Your task to perform on an android device: Clear the shopping cart on costco.com. Search for "razer blade" on costco.com, select the first entry, add it to the cart, then select checkout. Image 0: 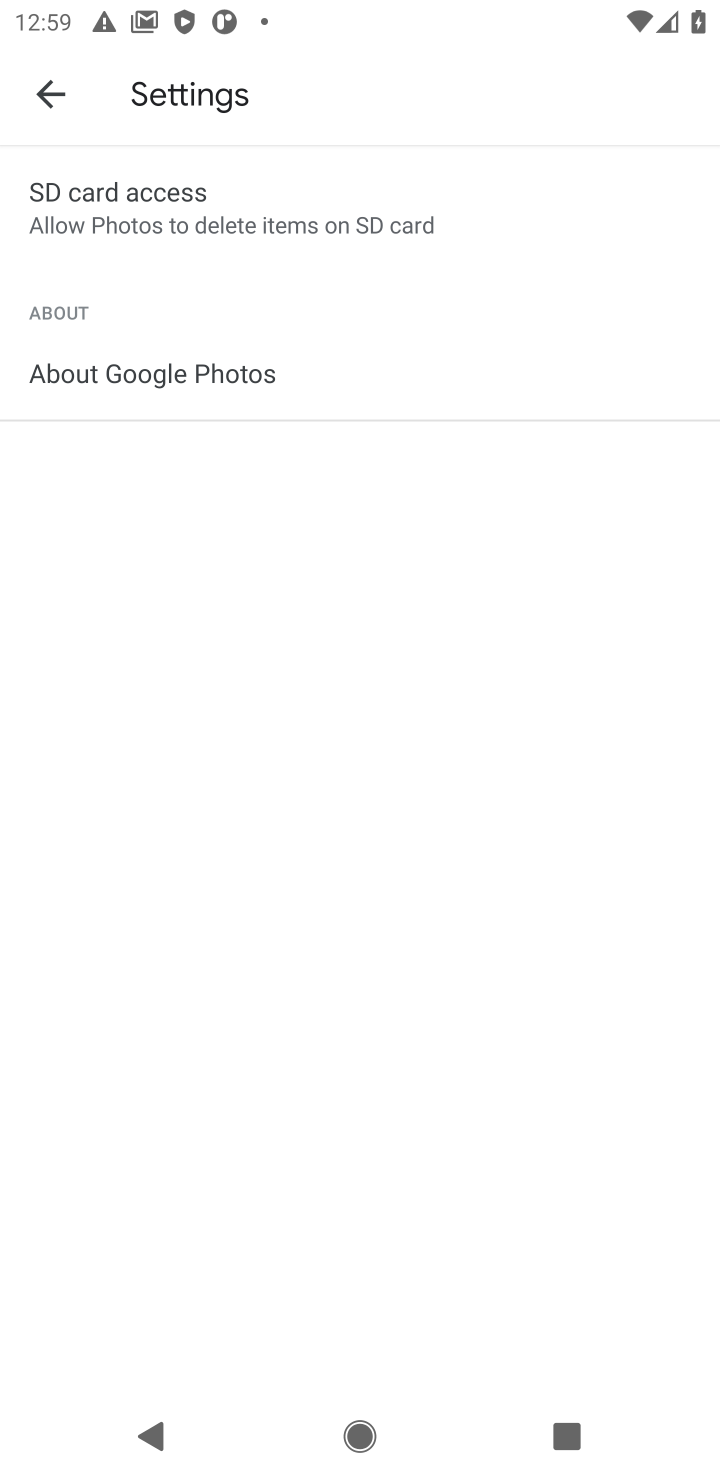
Step 0: press home button
Your task to perform on an android device: Clear the shopping cart on costco.com. Search for "razer blade" on costco.com, select the first entry, add it to the cart, then select checkout. Image 1: 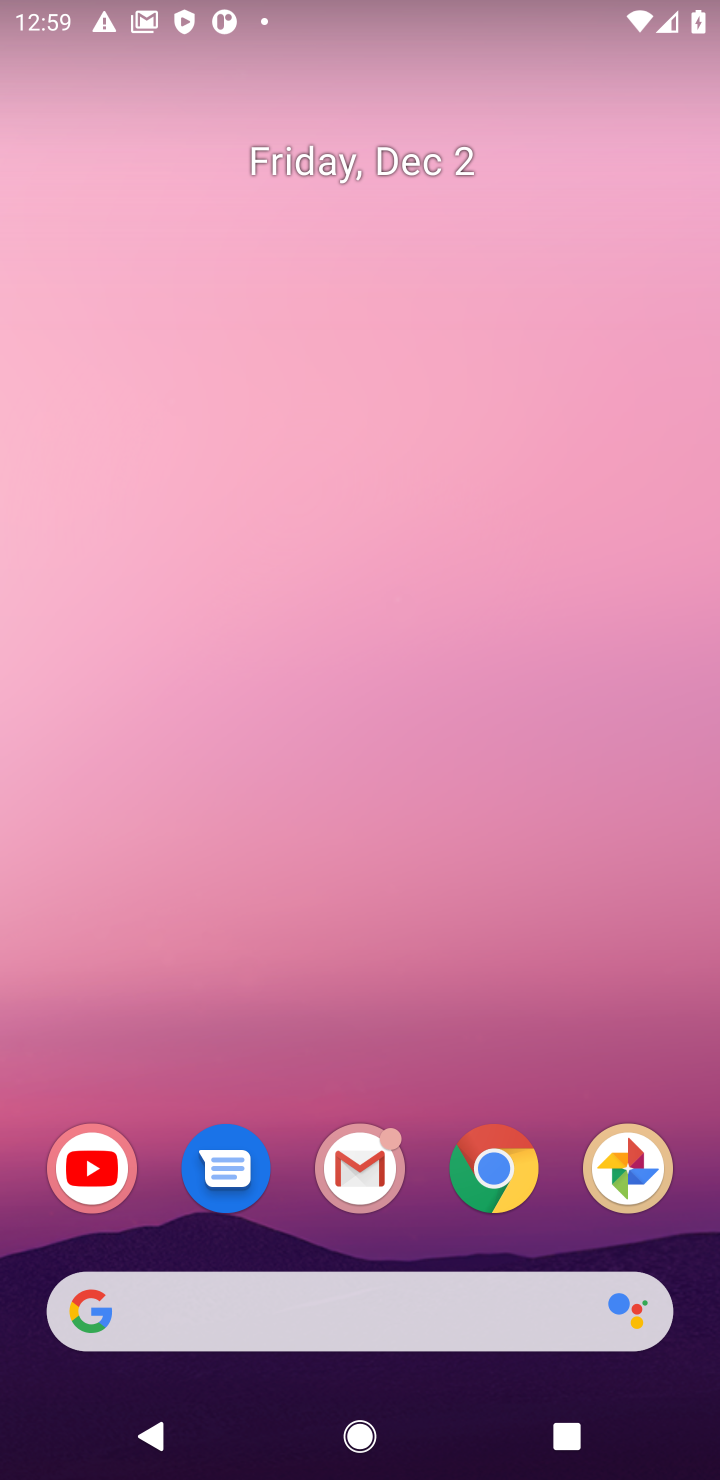
Step 1: click (501, 1177)
Your task to perform on an android device: Clear the shopping cart on costco.com. Search for "razer blade" on costco.com, select the first entry, add it to the cart, then select checkout. Image 2: 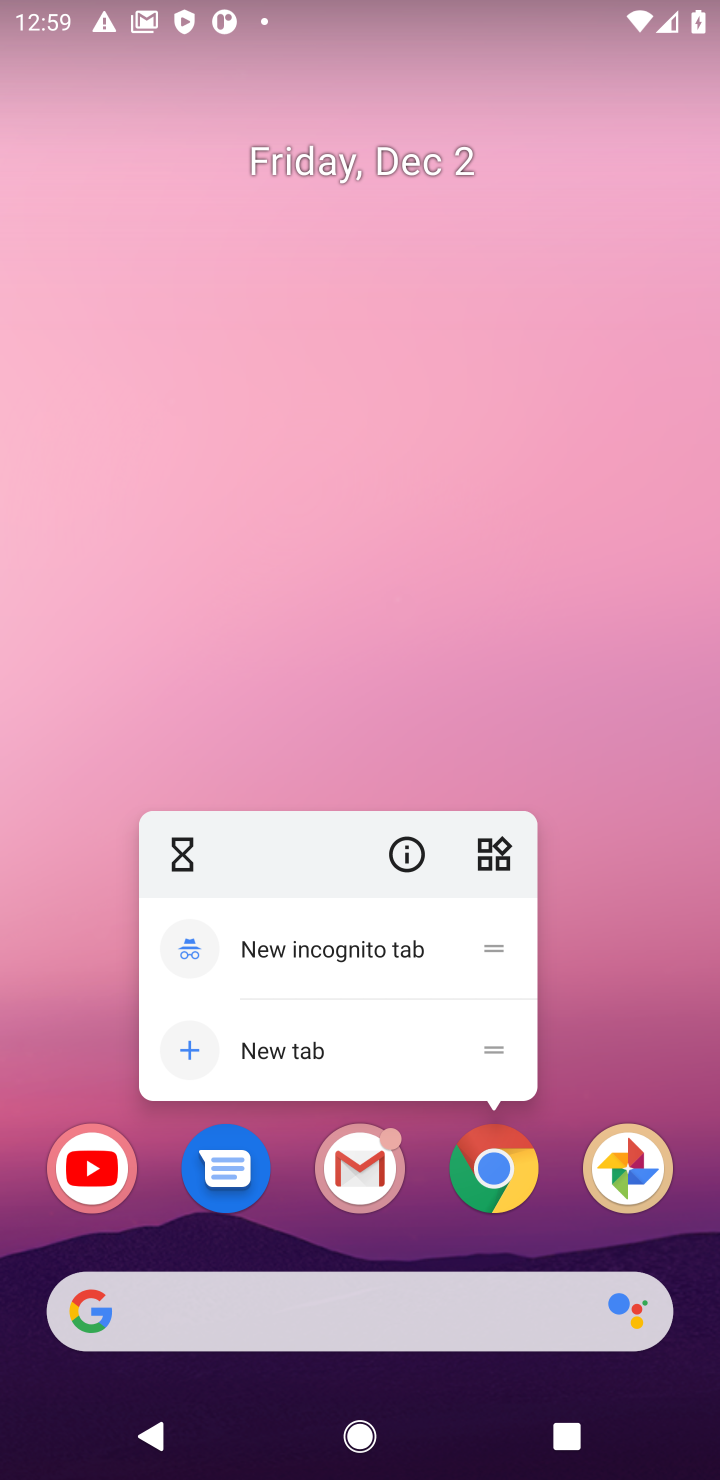
Step 2: click (501, 1177)
Your task to perform on an android device: Clear the shopping cart on costco.com. Search for "razer blade" on costco.com, select the first entry, add it to the cart, then select checkout. Image 3: 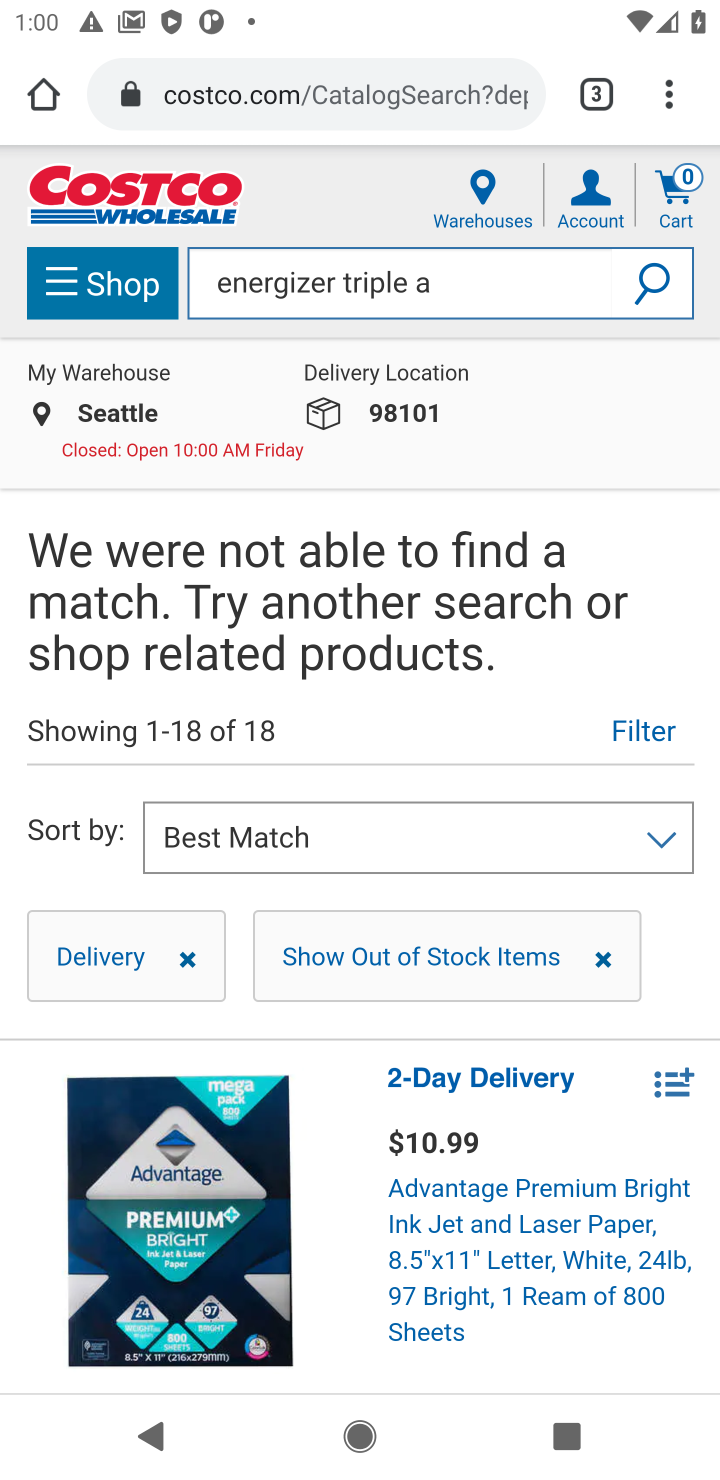
Step 3: click (677, 193)
Your task to perform on an android device: Clear the shopping cart on costco.com. Search for "razer blade" on costco.com, select the first entry, add it to the cart, then select checkout. Image 4: 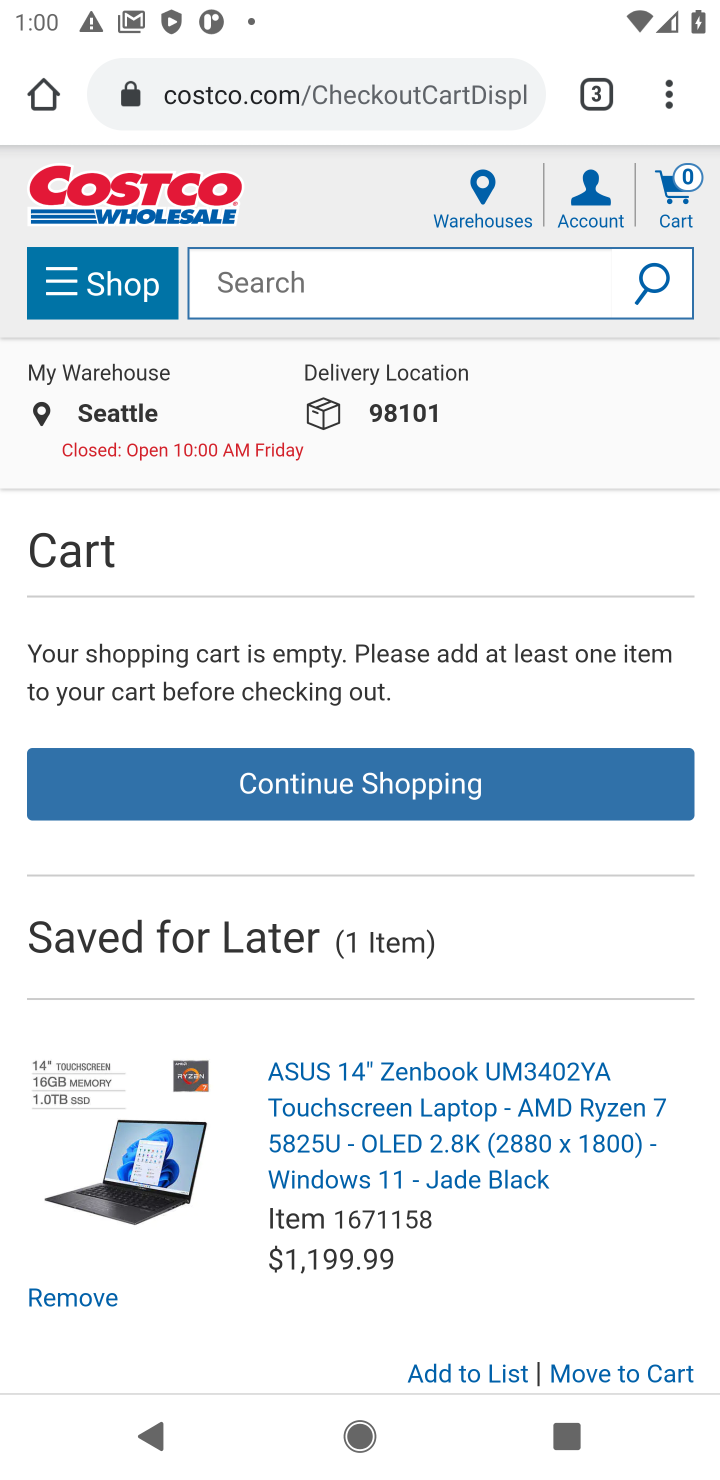
Step 4: click (248, 301)
Your task to perform on an android device: Clear the shopping cart on costco.com. Search for "razer blade" on costco.com, select the first entry, add it to the cart, then select checkout. Image 5: 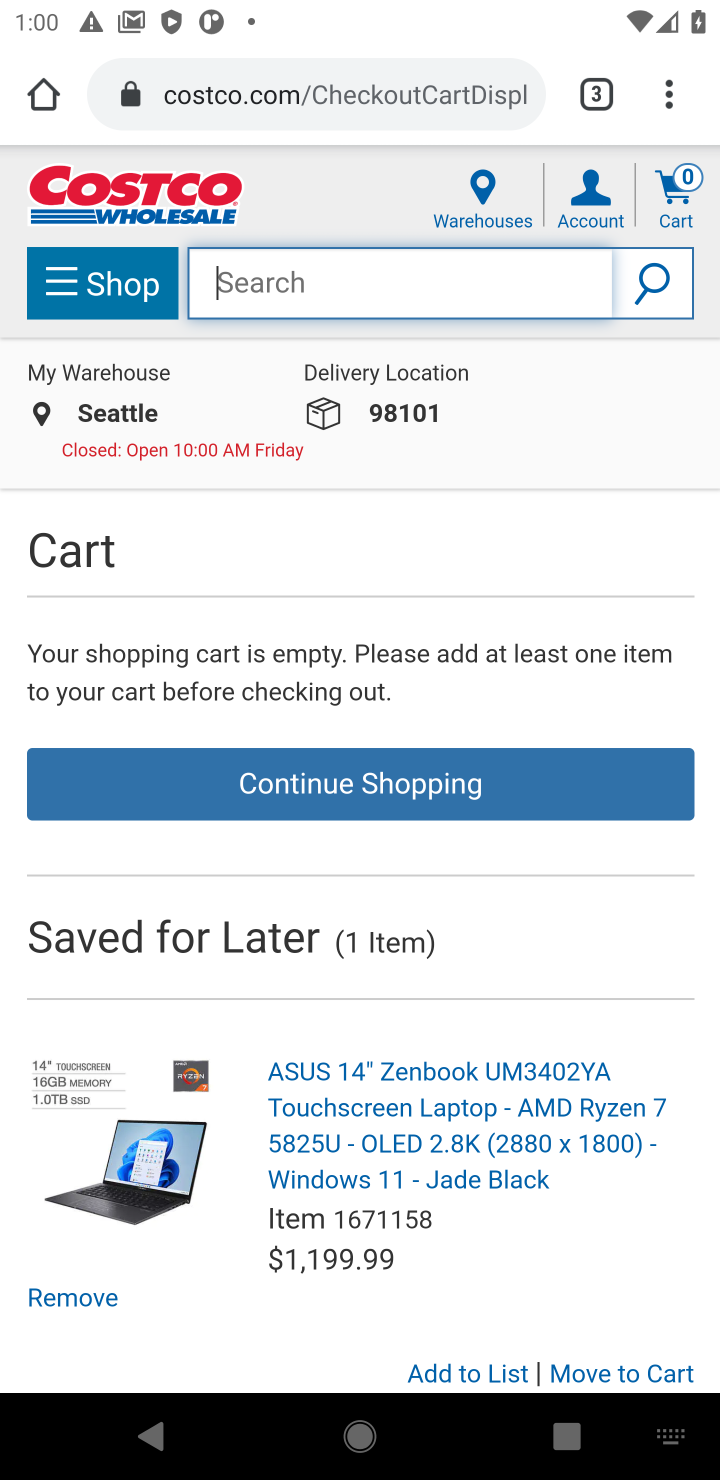
Step 5: type "razer blade"
Your task to perform on an android device: Clear the shopping cart on costco.com. Search for "razer blade" on costco.com, select the first entry, add it to the cart, then select checkout. Image 6: 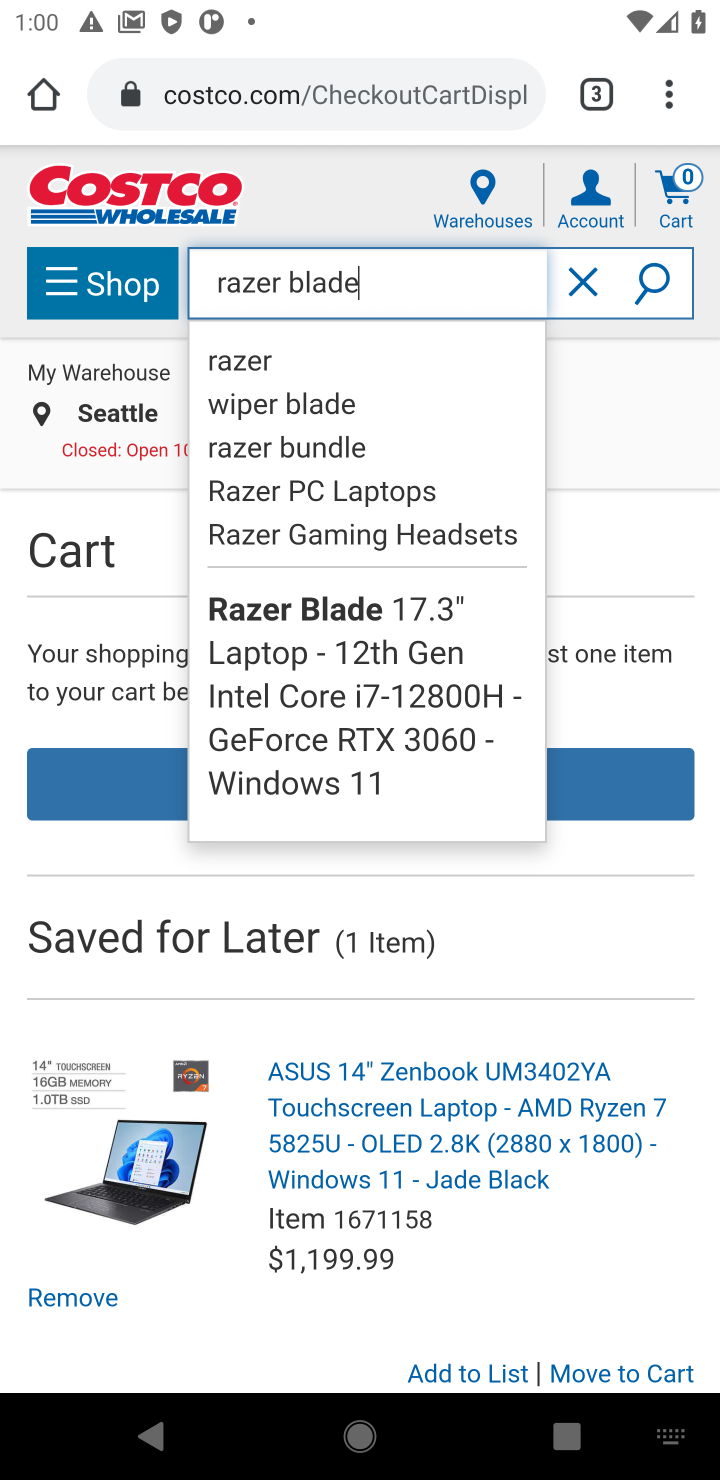
Step 6: click (666, 283)
Your task to perform on an android device: Clear the shopping cart on costco.com. Search for "razer blade" on costco.com, select the first entry, add it to the cart, then select checkout. Image 7: 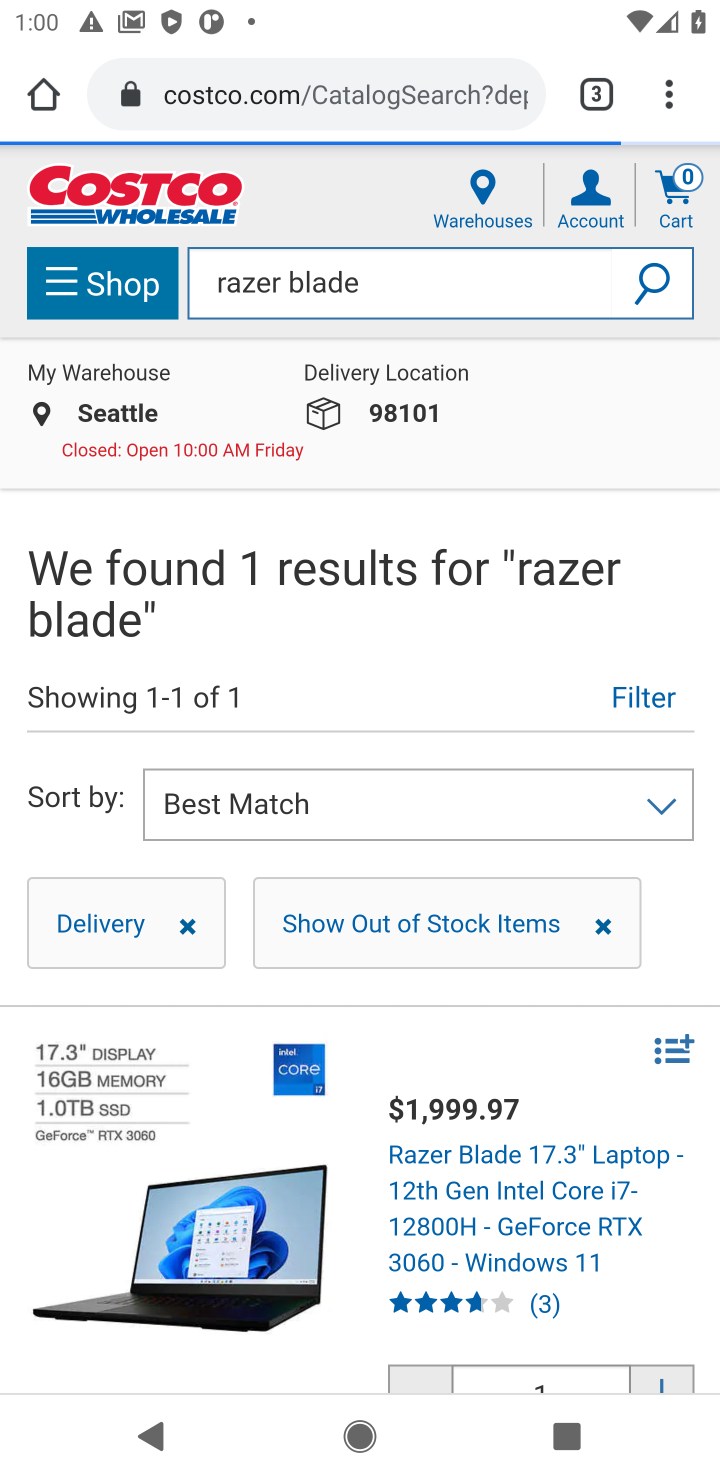
Step 7: drag from (399, 961) to (405, 706)
Your task to perform on an android device: Clear the shopping cart on costco.com. Search for "razer blade" on costco.com, select the first entry, add it to the cart, then select checkout. Image 8: 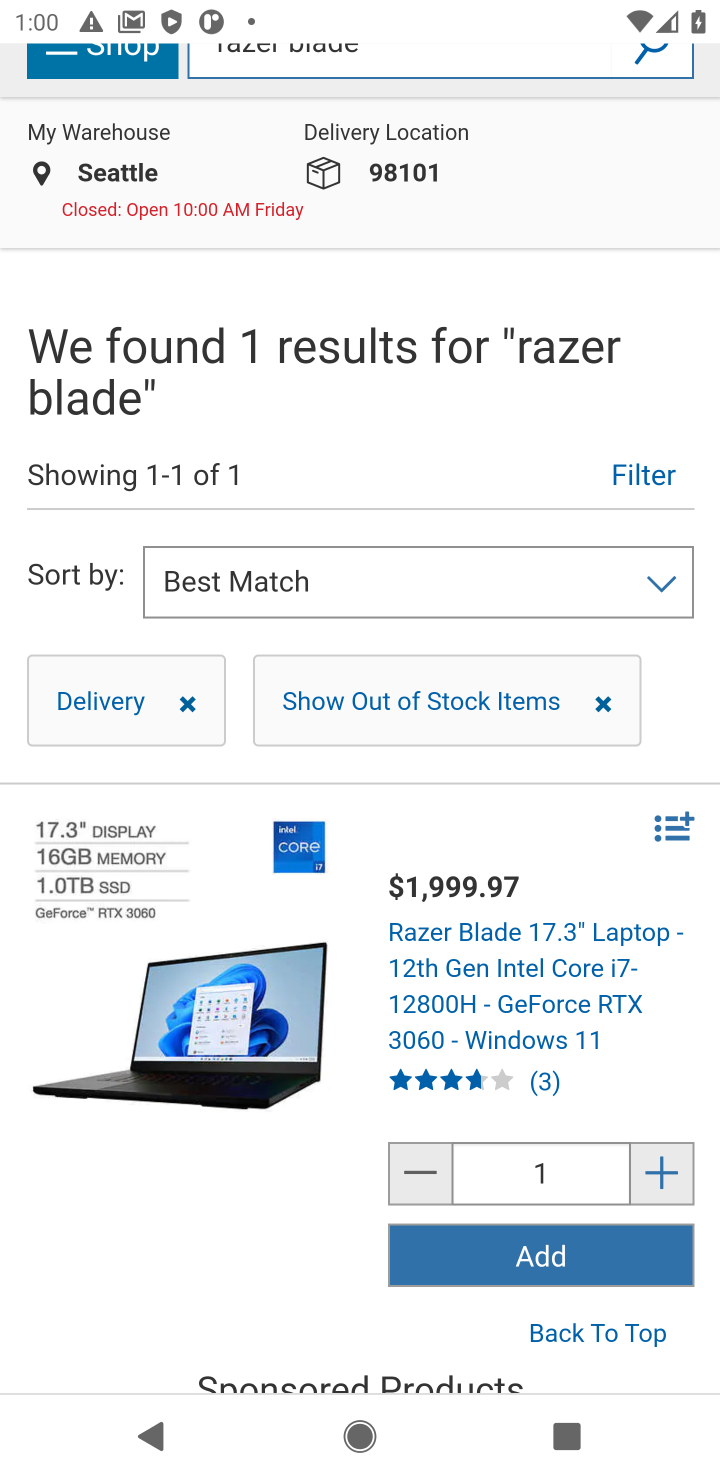
Step 8: click (537, 1256)
Your task to perform on an android device: Clear the shopping cart on costco.com. Search for "razer blade" on costco.com, select the first entry, add it to the cart, then select checkout. Image 9: 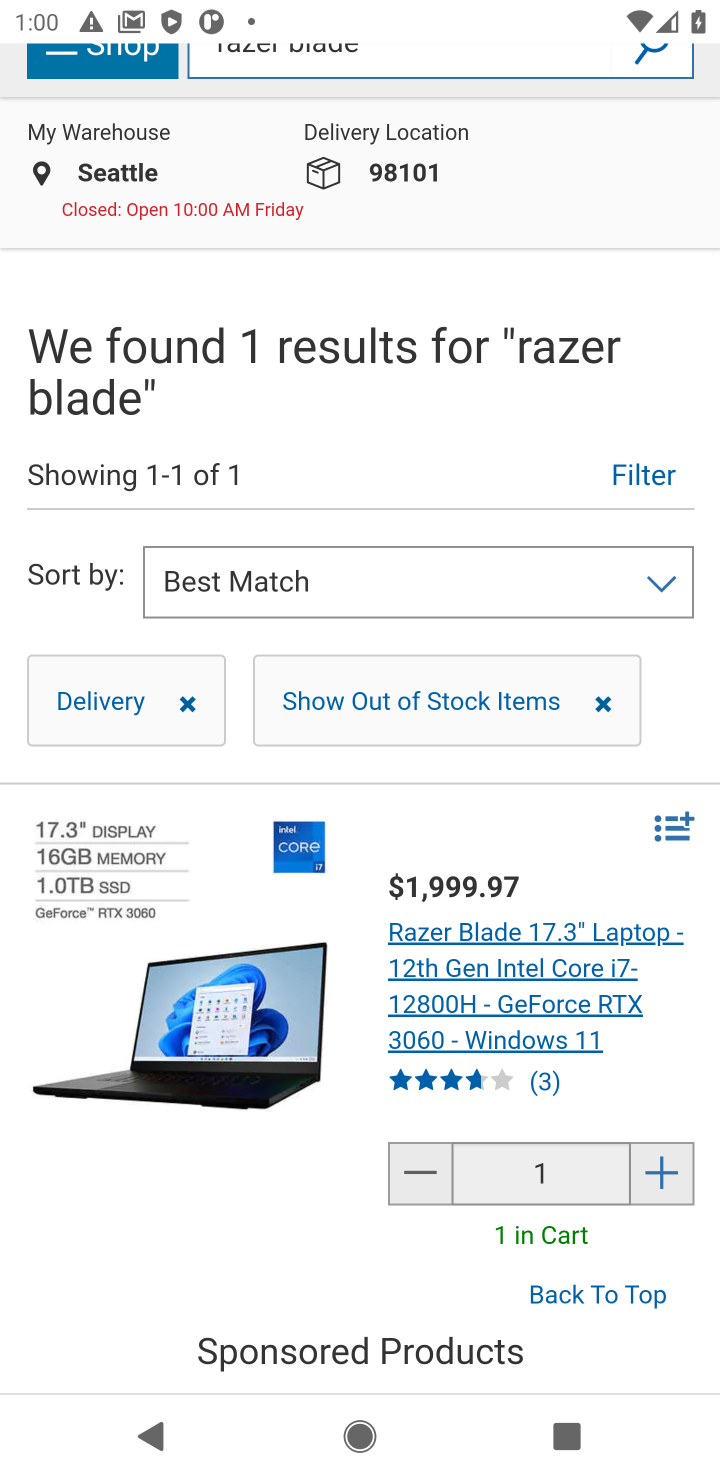
Step 9: drag from (536, 410) to (495, 1020)
Your task to perform on an android device: Clear the shopping cart on costco.com. Search for "razer blade" on costco.com, select the first entry, add it to the cart, then select checkout. Image 10: 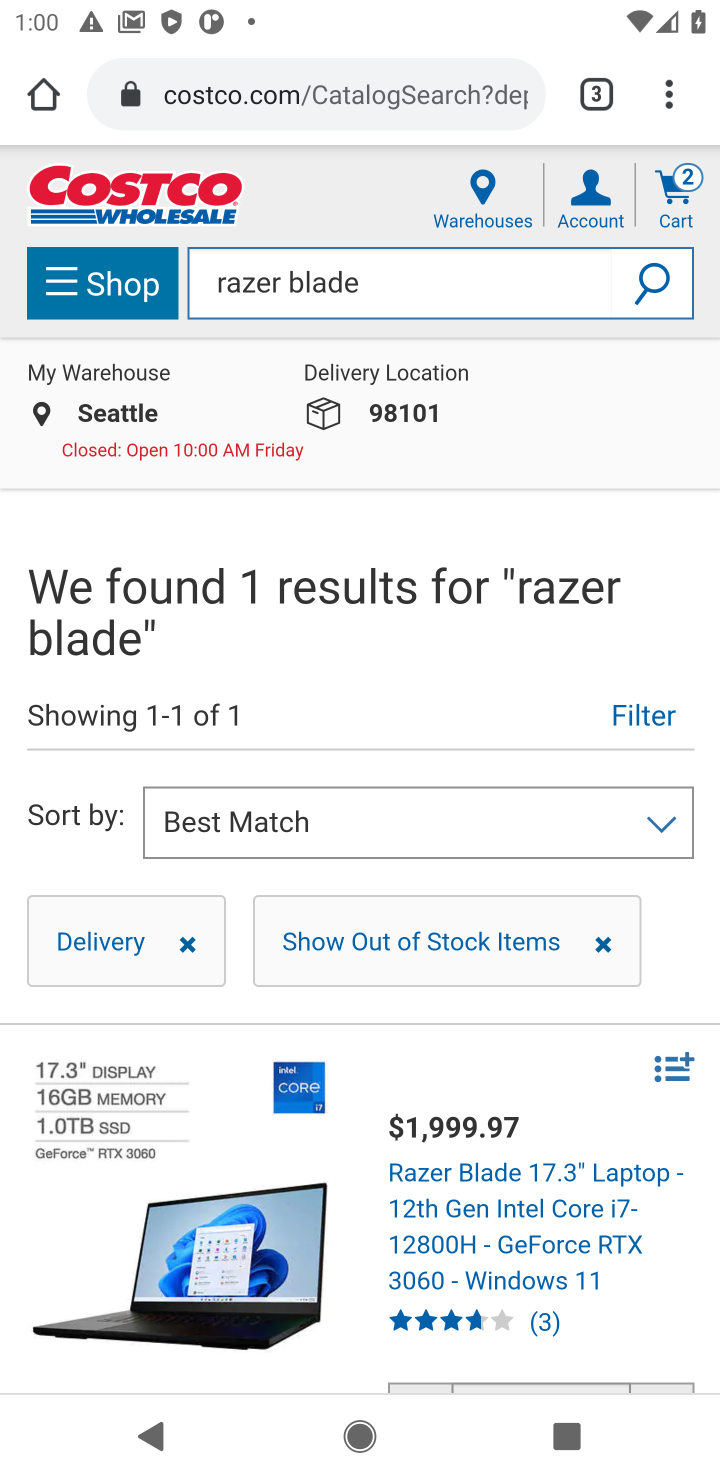
Step 10: click (675, 193)
Your task to perform on an android device: Clear the shopping cart on costco.com. Search for "razer blade" on costco.com, select the first entry, add it to the cart, then select checkout. Image 11: 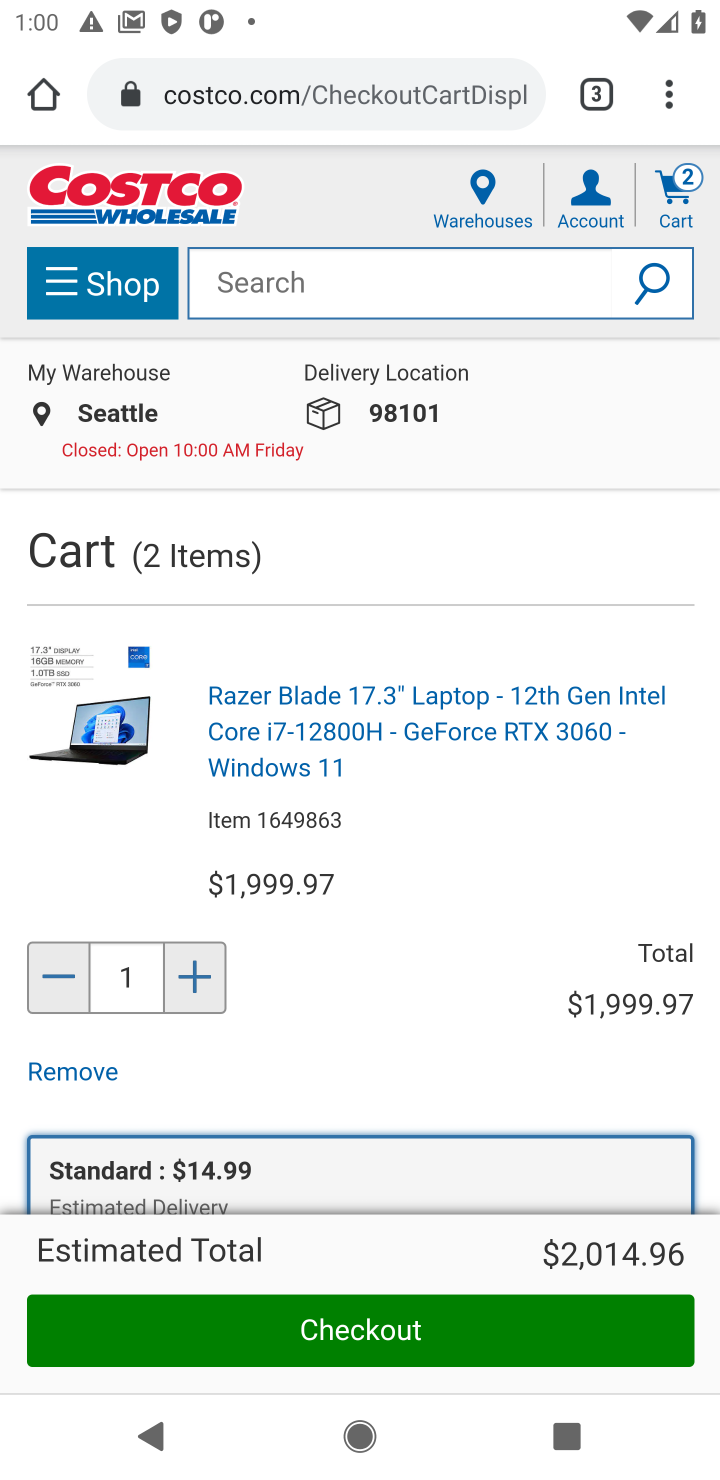
Step 11: click (400, 1316)
Your task to perform on an android device: Clear the shopping cart on costco.com. Search for "razer blade" on costco.com, select the first entry, add it to the cart, then select checkout. Image 12: 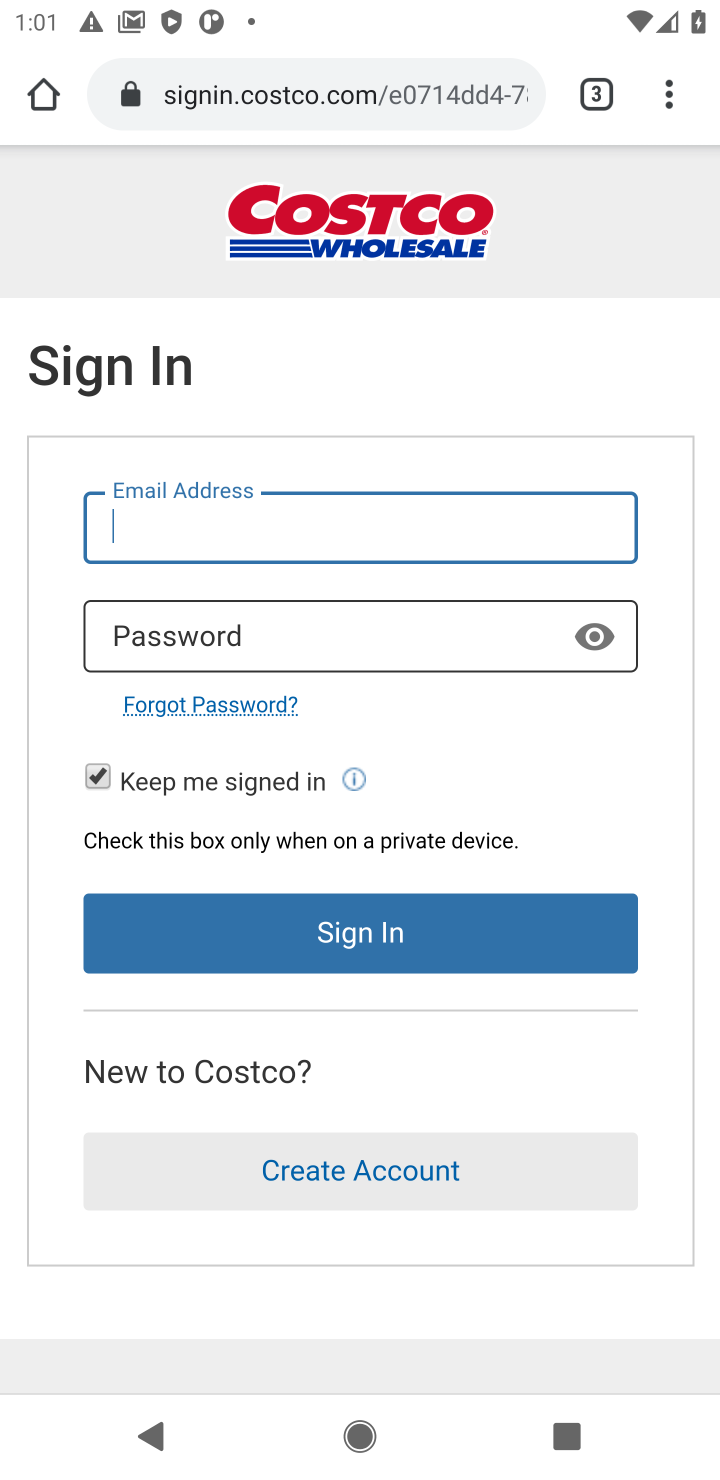
Step 12: task complete